Your task to perform on an android device: move an email to a new category in the gmail app Image 0: 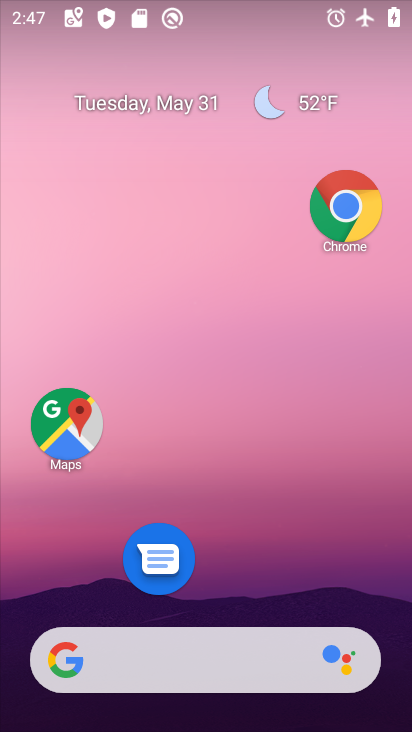
Step 0: drag from (254, 560) to (220, 16)
Your task to perform on an android device: move an email to a new category in the gmail app Image 1: 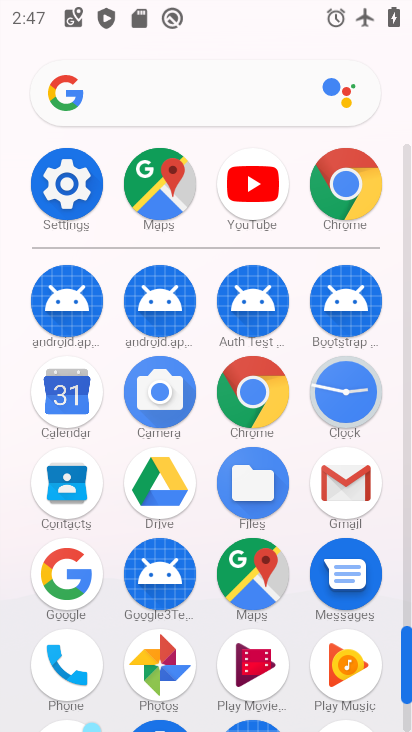
Step 1: click (327, 486)
Your task to perform on an android device: move an email to a new category in the gmail app Image 2: 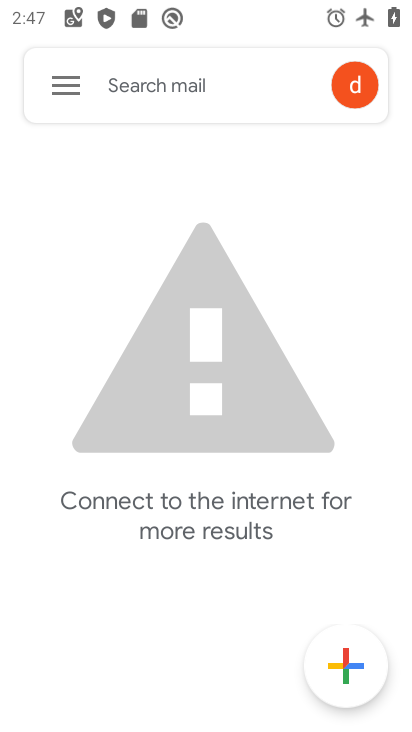
Step 2: task complete